Your task to perform on an android device: turn off notifications settings in the gmail app Image 0: 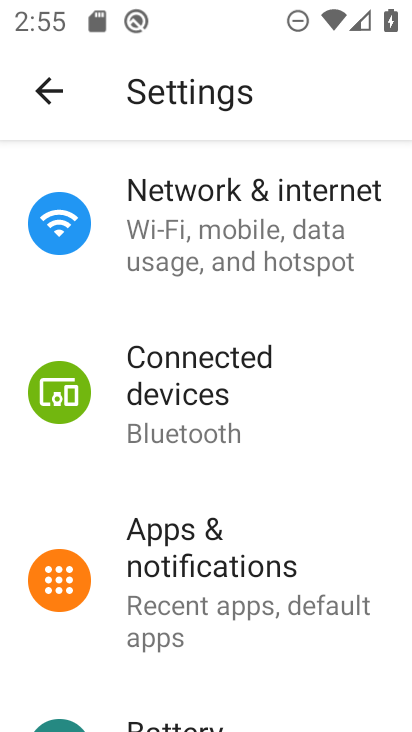
Step 0: press back button
Your task to perform on an android device: turn off notifications settings in the gmail app Image 1: 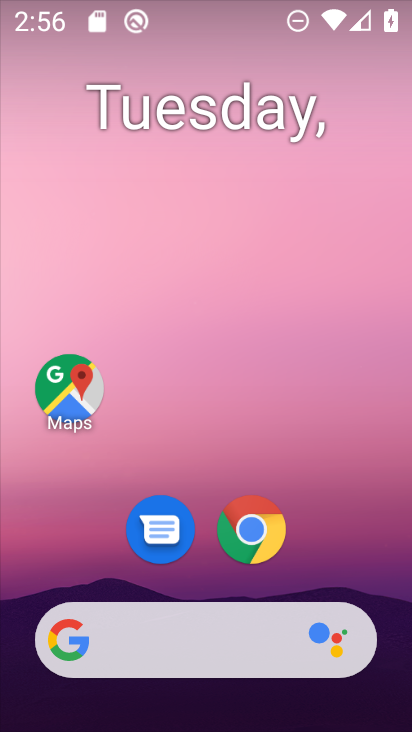
Step 1: drag from (210, 452) to (267, 0)
Your task to perform on an android device: turn off notifications settings in the gmail app Image 2: 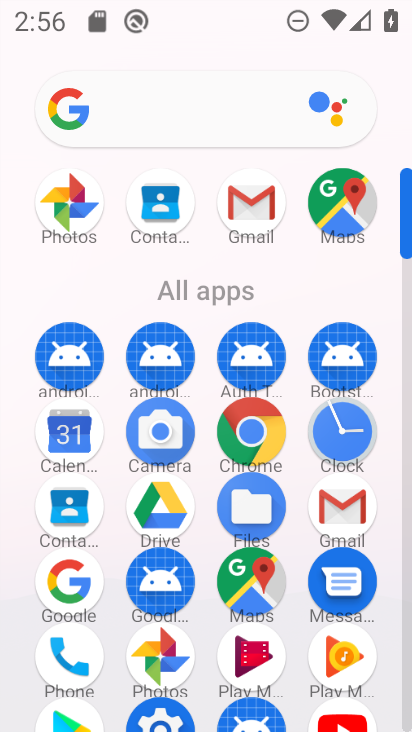
Step 2: click (247, 205)
Your task to perform on an android device: turn off notifications settings in the gmail app Image 3: 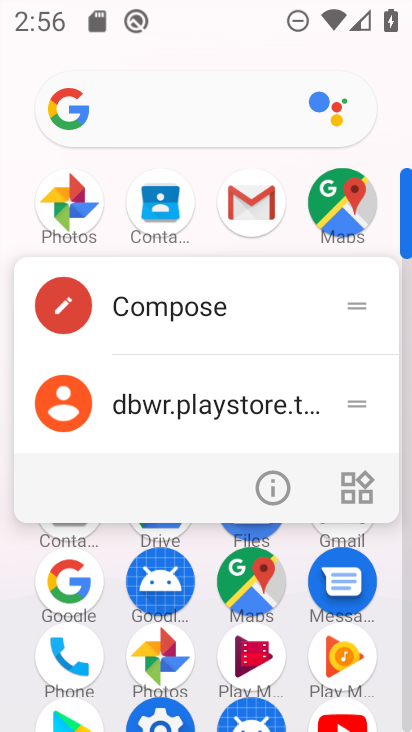
Step 3: click (281, 497)
Your task to perform on an android device: turn off notifications settings in the gmail app Image 4: 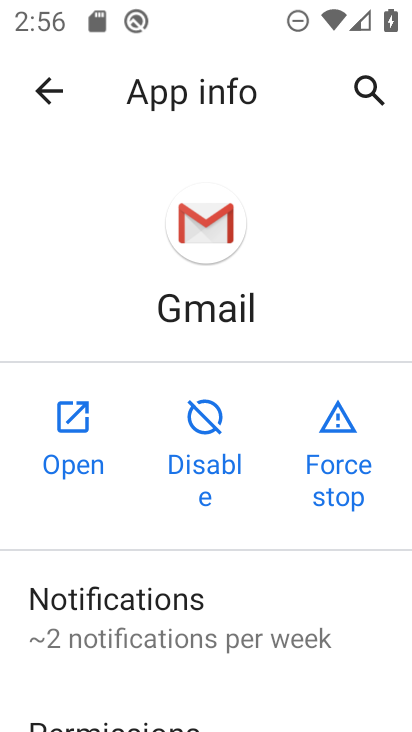
Step 4: click (130, 625)
Your task to perform on an android device: turn off notifications settings in the gmail app Image 5: 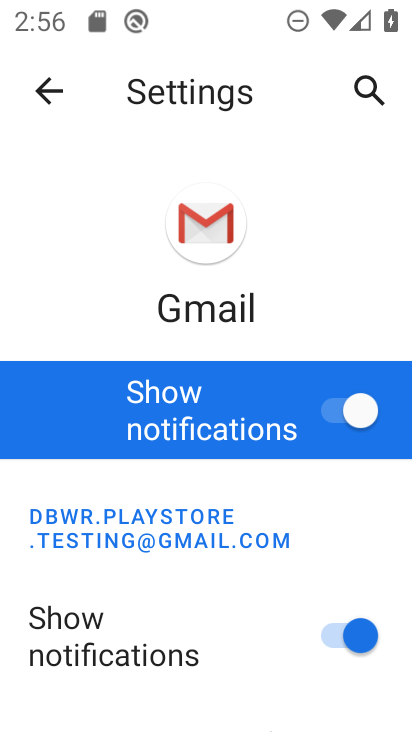
Step 5: click (356, 404)
Your task to perform on an android device: turn off notifications settings in the gmail app Image 6: 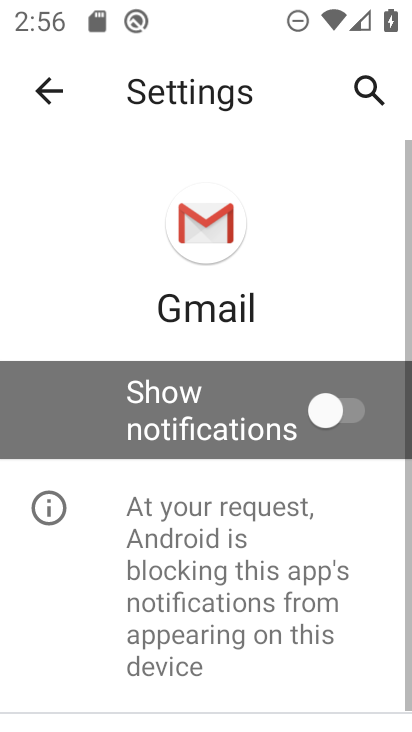
Step 6: task complete